Your task to perform on an android device: turn pop-ups off in chrome Image 0: 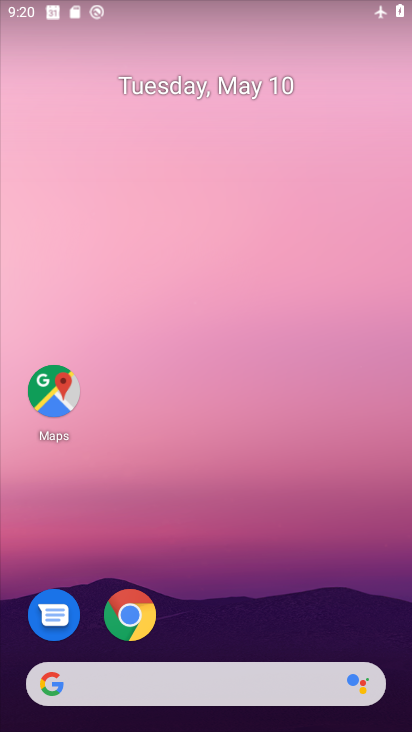
Step 0: click (205, 271)
Your task to perform on an android device: turn pop-ups off in chrome Image 1: 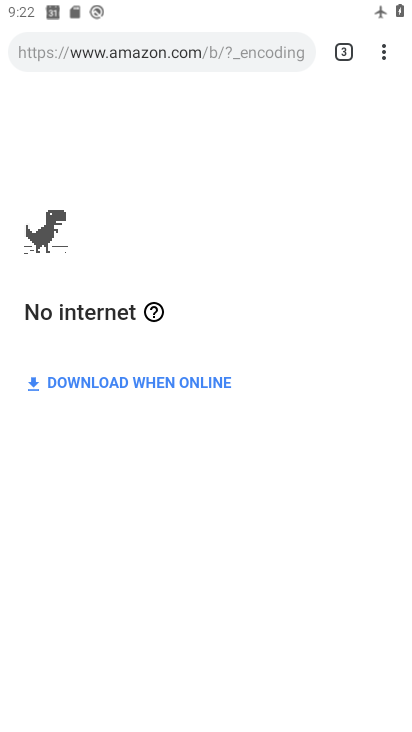
Step 1: drag from (237, 277) to (255, 114)
Your task to perform on an android device: turn pop-ups off in chrome Image 2: 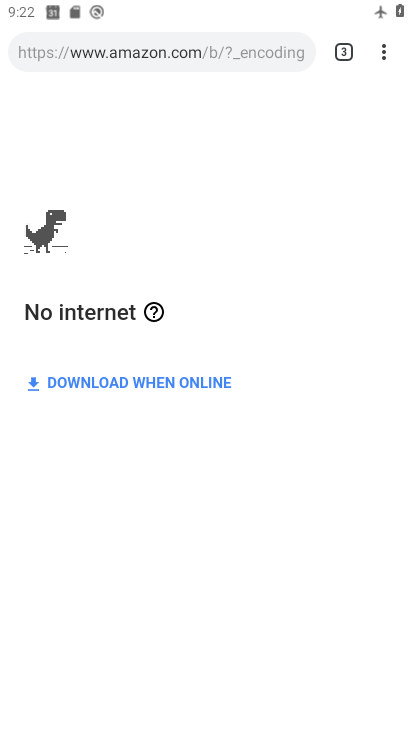
Step 2: click (389, 44)
Your task to perform on an android device: turn pop-ups off in chrome Image 3: 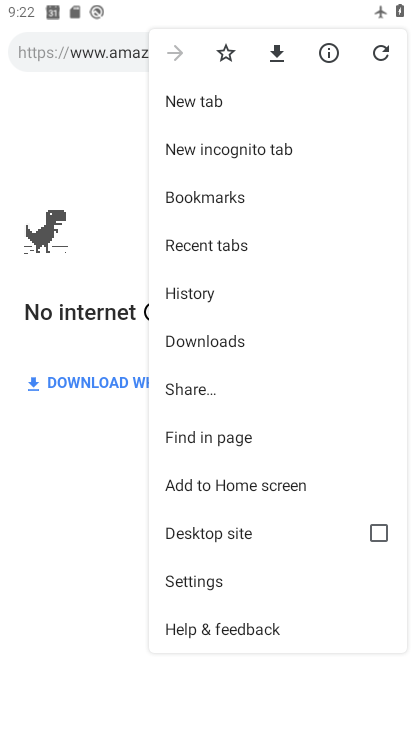
Step 3: click (253, 566)
Your task to perform on an android device: turn pop-ups off in chrome Image 4: 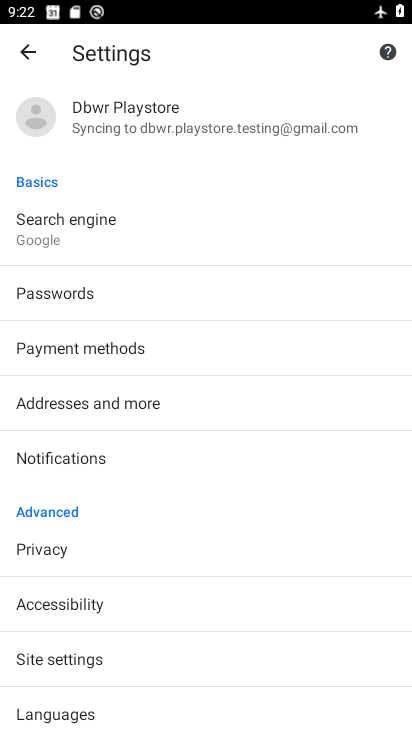
Step 4: click (127, 654)
Your task to perform on an android device: turn pop-ups off in chrome Image 5: 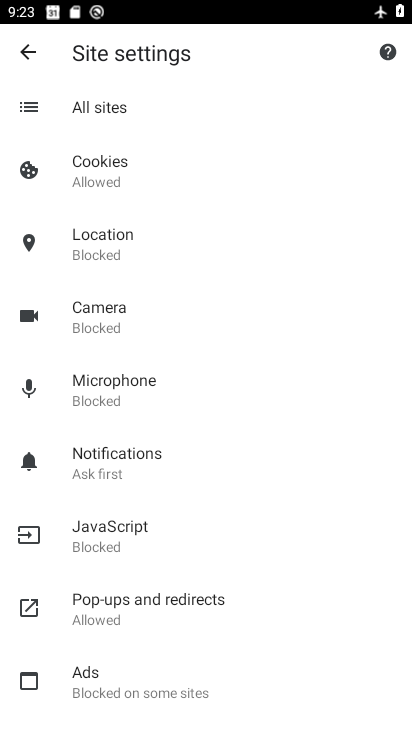
Step 5: click (169, 600)
Your task to perform on an android device: turn pop-ups off in chrome Image 6: 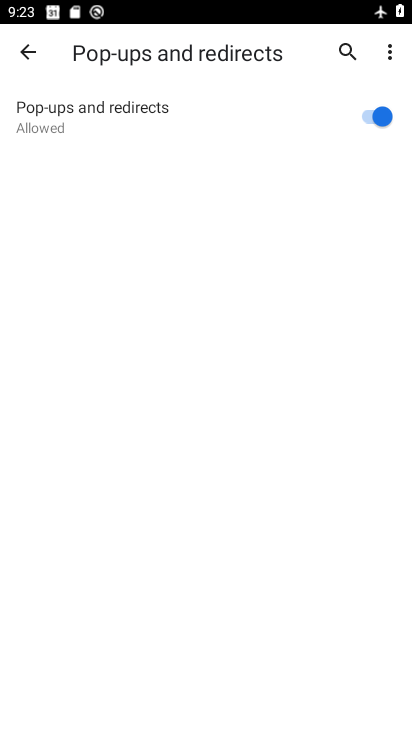
Step 6: click (386, 98)
Your task to perform on an android device: turn pop-ups off in chrome Image 7: 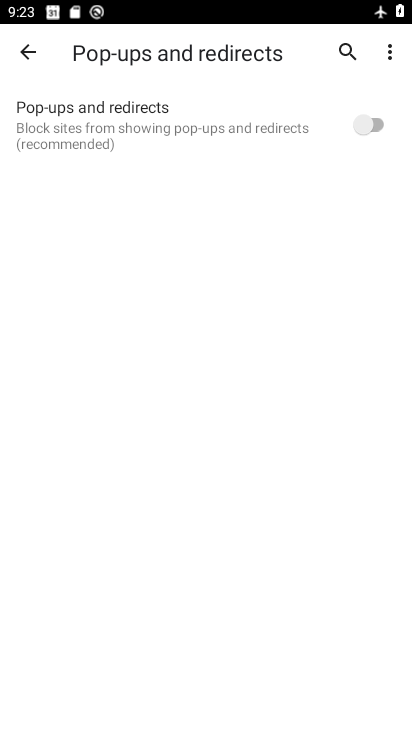
Step 7: task complete